Your task to perform on an android device: Open Yahoo.com Image 0: 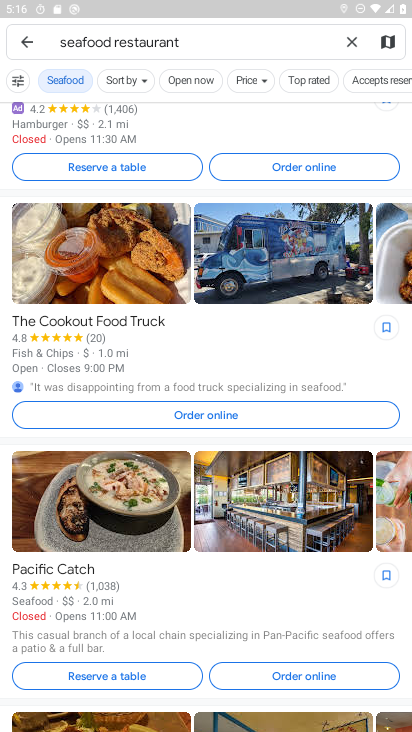
Step 0: press home button
Your task to perform on an android device: Open Yahoo.com Image 1: 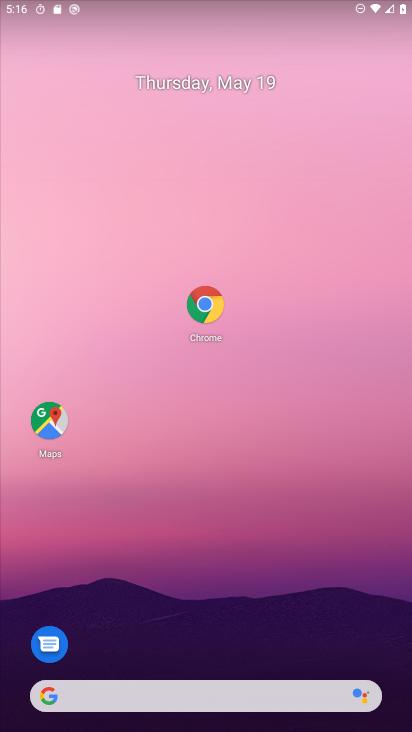
Step 1: click (214, 306)
Your task to perform on an android device: Open Yahoo.com Image 2: 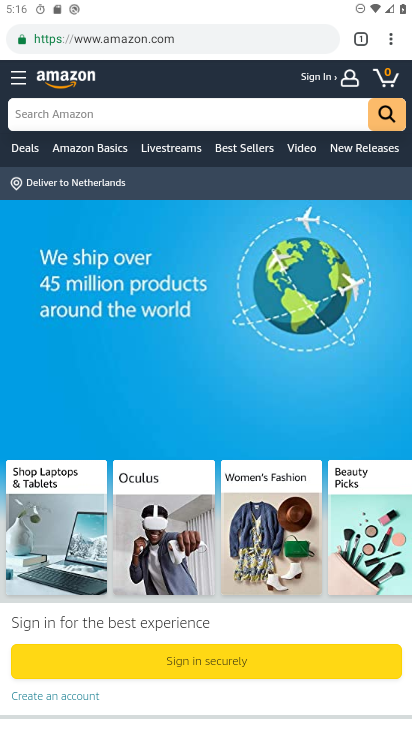
Step 2: click (389, 37)
Your task to perform on an android device: Open Yahoo.com Image 3: 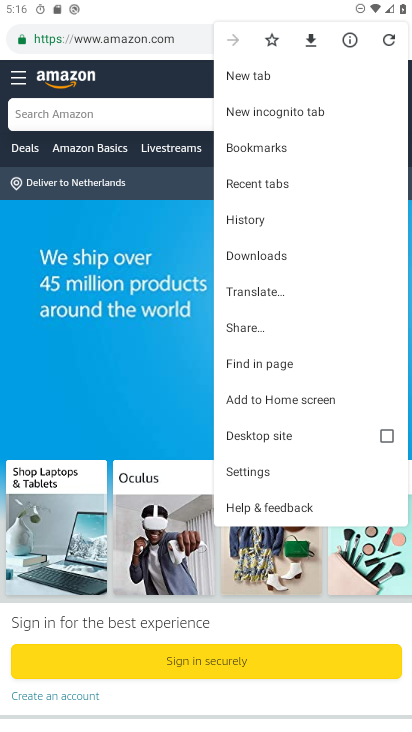
Step 3: click (120, 28)
Your task to perform on an android device: Open Yahoo.com Image 4: 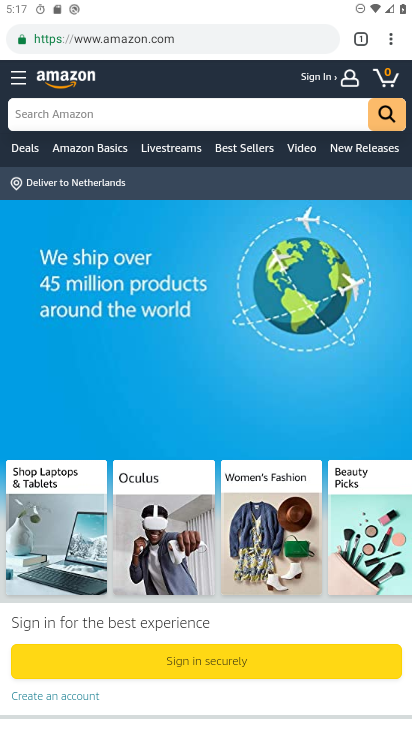
Step 4: click (366, 37)
Your task to perform on an android device: Open Yahoo.com Image 5: 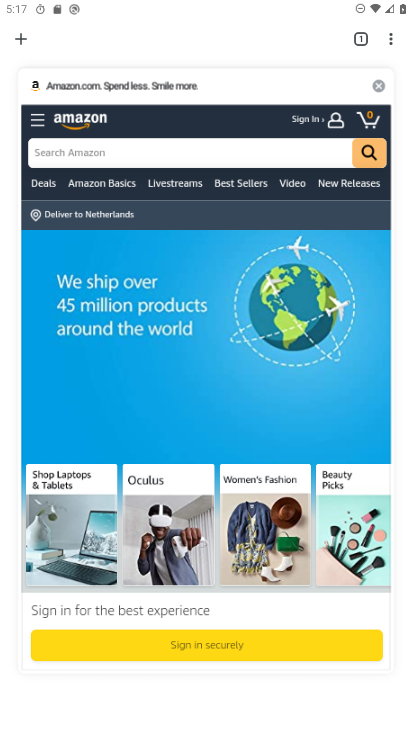
Step 5: click (378, 83)
Your task to perform on an android device: Open Yahoo.com Image 6: 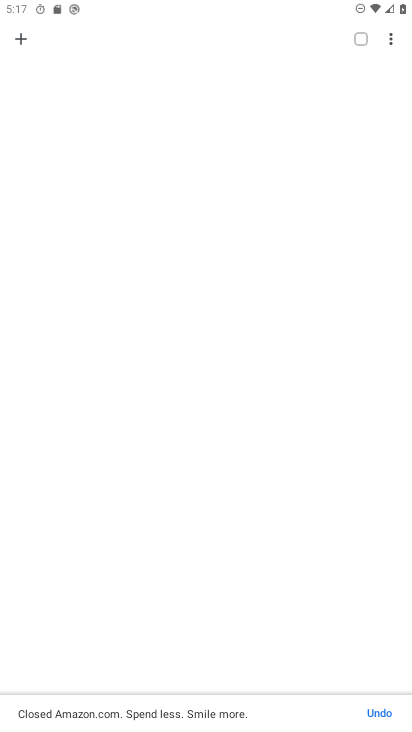
Step 6: click (25, 40)
Your task to perform on an android device: Open Yahoo.com Image 7: 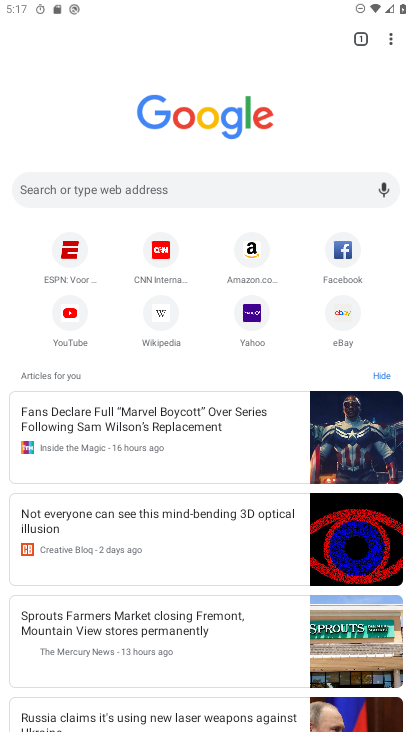
Step 7: click (255, 314)
Your task to perform on an android device: Open Yahoo.com Image 8: 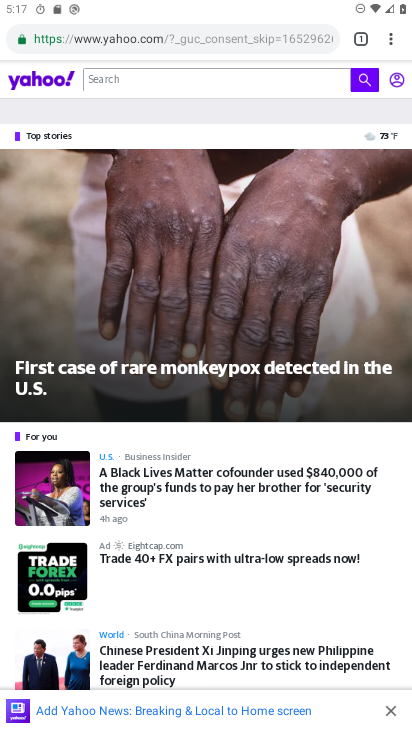
Step 8: task complete